Your task to perform on an android device: Clear all items from cart on bestbuy.com. Search for lenovo thinkpad on bestbuy.com, select the first entry, and add it to the cart. Image 0: 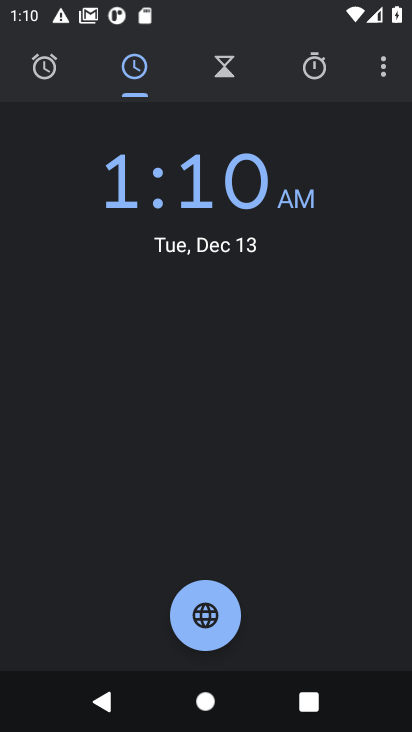
Step 0: press home button
Your task to perform on an android device: Clear all items from cart on bestbuy.com. Search for lenovo thinkpad on bestbuy.com, select the first entry, and add it to the cart. Image 1: 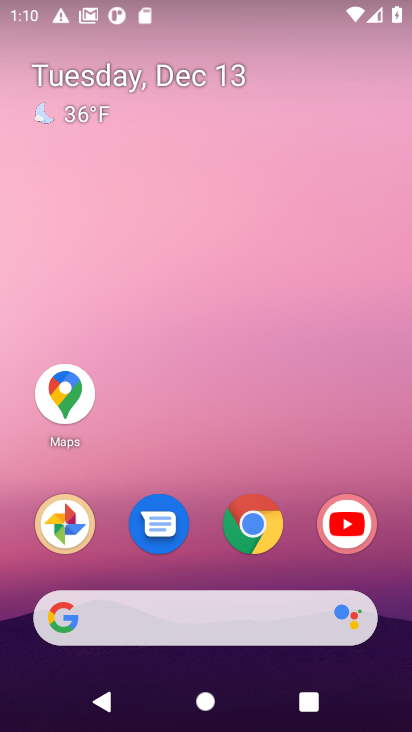
Step 1: click (250, 522)
Your task to perform on an android device: Clear all items from cart on bestbuy.com. Search for lenovo thinkpad on bestbuy.com, select the first entry, and add it to the cart. Image 2: 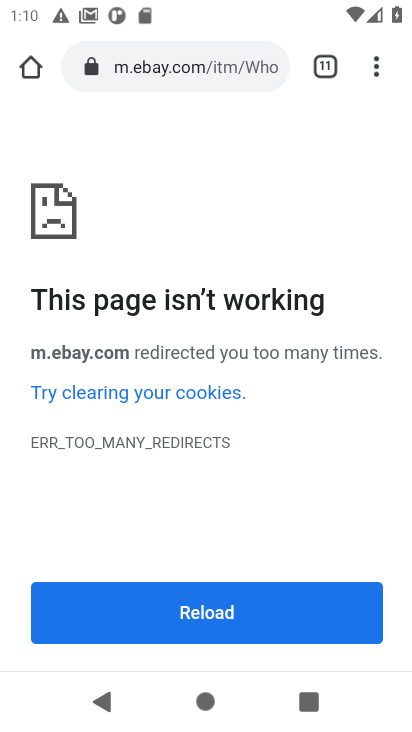
Step 2: click (146, 65)
Your task to perform on an android device: Clear all items from cart on bestbuy.com. Search for lenovo thinkpad on bestbuy.com, select the first entry, and add it to the cart. Image 3: 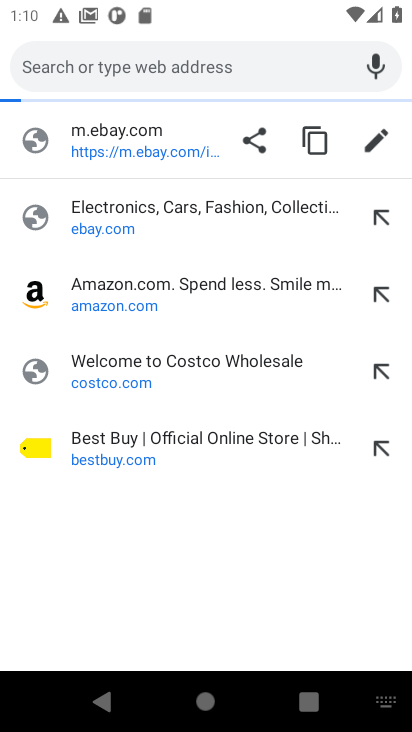
Step 3: click (89, 440)
Your task to perform on an android device: Clear all items from cart on bestbuy.com. Search for lenovo thinkpad on bestbuy.com, select the first entry, and add it to the cart. Image 4: 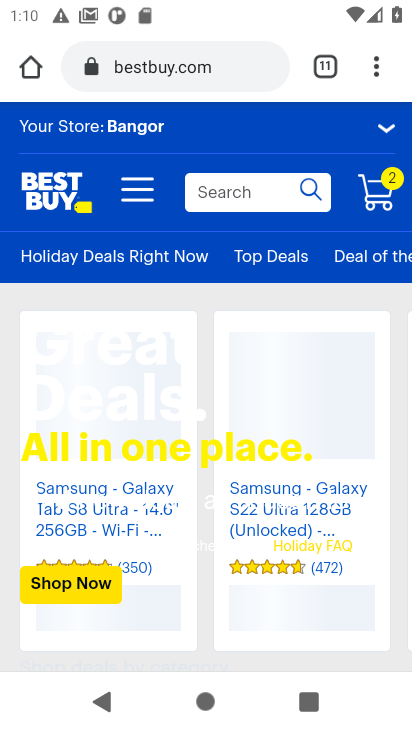
Step 4: click (384, 197)
Your task to perform on an android device: Clear all items from cart on bestbuy.com. Search for lenovo thinkpad on bestbuy.com, select the first entry, and add it to the cart. Image 5: 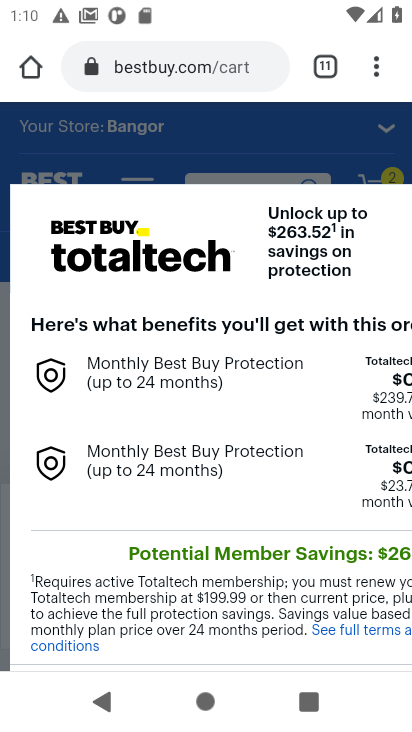
Step 5: drag from (245, 514) to (223, 623)
Your task to perform on an android device: Clear all items from cart on bestbuy.com. Search for lenovo thinkpad on bestbuy.com, select the first entry, and add it to the cart. Image 6: 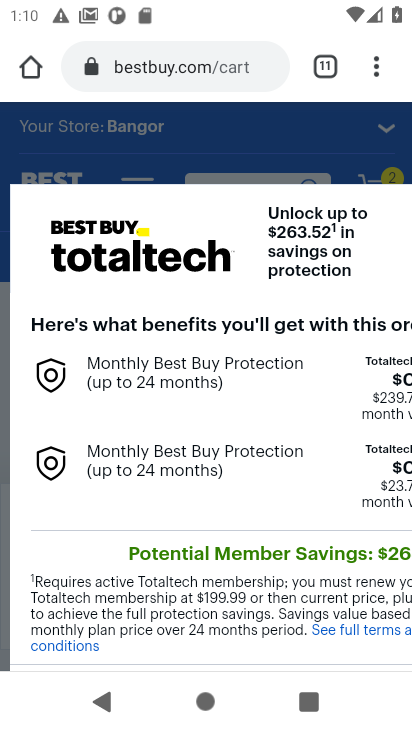
Step 6: click (279, 149)
Your task to perform on an android device: Clear all items from cart on bestbuy.com. Search for lenovo thinkpad on bestbuy.com, select the first entry, and add it to the cart. Image 7: 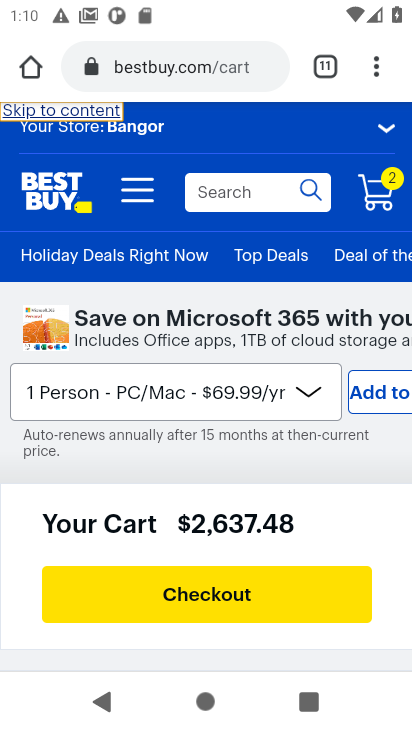
Step 7: drag from (183, 512) to (150, 117)
Your task to perform on an android device: Clear all items from cart on bestbuy.com. Search for lenovo thinkpad on bestbuy.com, select the first entry, and add it to the cart. Image 8: 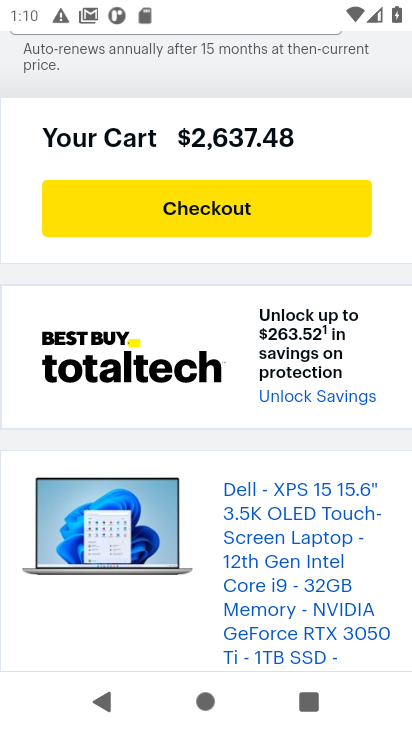
Step 8: drag from (165, 444) to (137, 181)
Your task to perform on an android device: Clear all items from cart on bestbuy.com. Search for lenovo thinkpad on bestbuy.com, select the first entry, and add it to the cart. Image 9: 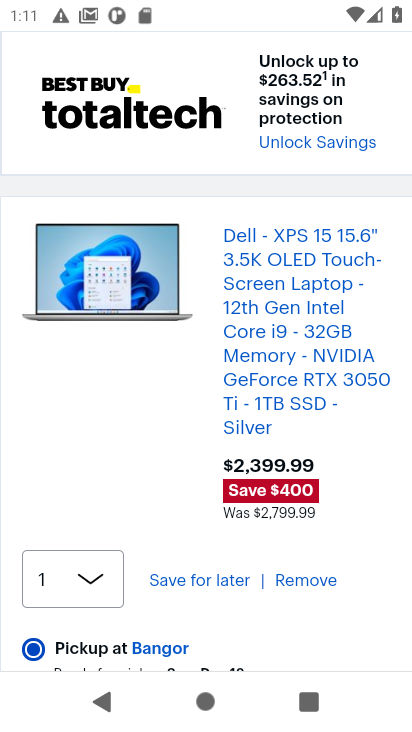
Step 9: click (297, 586)
Your task to perform on an android device: Clear all items from cart on bestbuy.com. Search for lenovo thinkpad on bestbuy.com, select the first entry, and add it to the cart. Image 10: 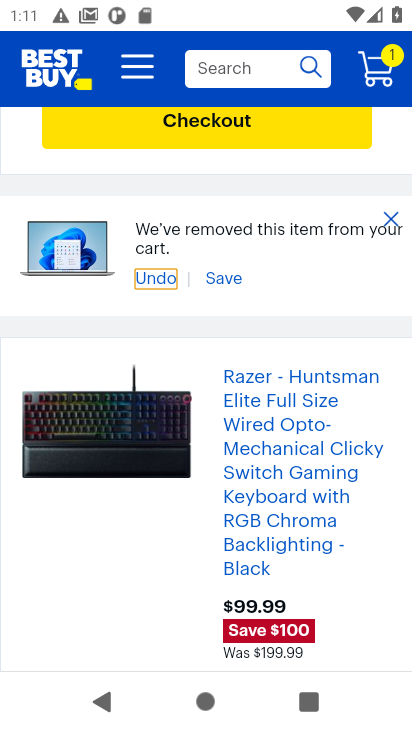
Step 10: drag from (272, 519) to (243, 241)
Your task to perform on an android device: Clear all items from cart on bestbuy.com. Search for lenovo thinkpad on bestbuy.com, select the first entry, and add it to the cart. Image 11: 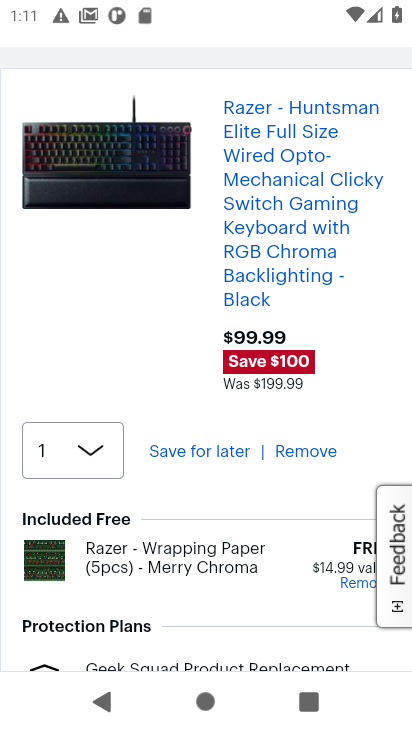
Step 11: click (316, 453)
Your task to perform on an android device: Clear all items from cart on bestbuy.com. Search for lenovo thinkpad on bestbuy.com, select the first entry, and add it to the cart. Image 12: 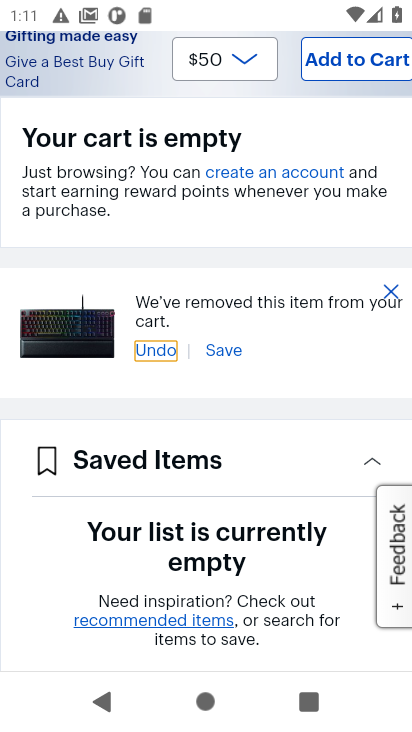
Step 12: drag from (278, 214) to (241, 629)
Your task to perform on an android device: Clear all items from cart on bestbuy.com. Search for lenovo thinkpad on bestbuy.com, select the first entry, and add it to the cart. Image 13: 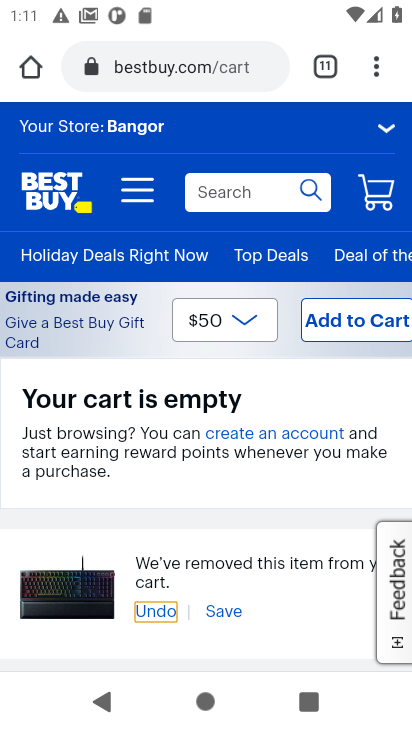
Step 13: click (220, 192)
Your task to perform on an android device: Clear all items from cart on bestbuy.com. Search for lenovo thinkpad on bestbuy.com, select the first entry, and add it to the cart. Image 14: 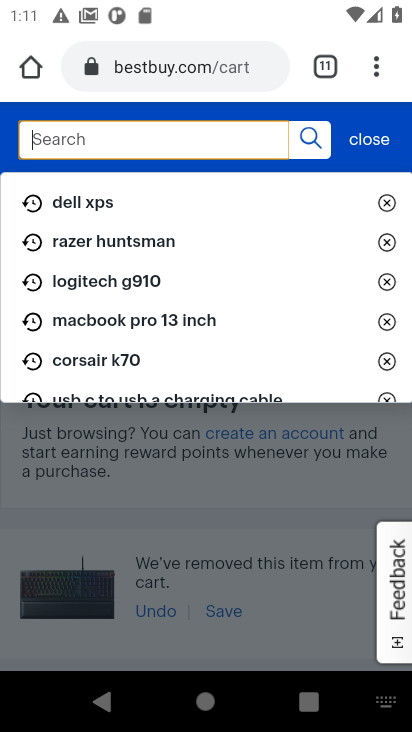
Step 14: type " lenovo thinkpad"
Your task to perform on an android device: Clear all items from cart on bestbuy.com. Search for lenovo thinkpad on bestbuy.com, select the first entry, and add it to the cart. Image 15: 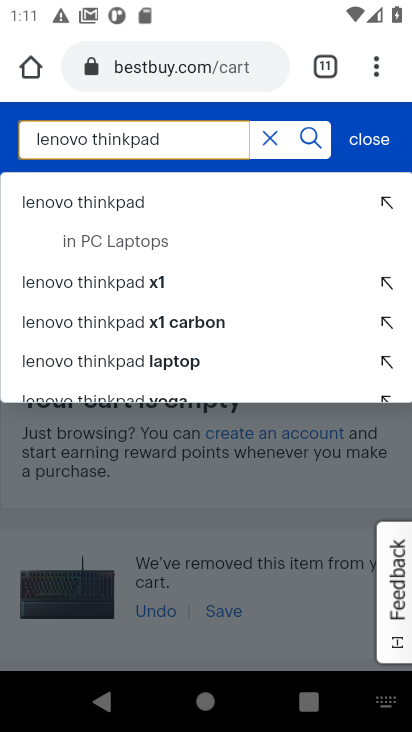
Step 15: click (93, 205)
Your task to perform on an android device: Clear all items from cart on bestbuy.com. Search for lenovo thinkpad on bestbuy.com, select the first entry, and add it to the cart. Image 16: 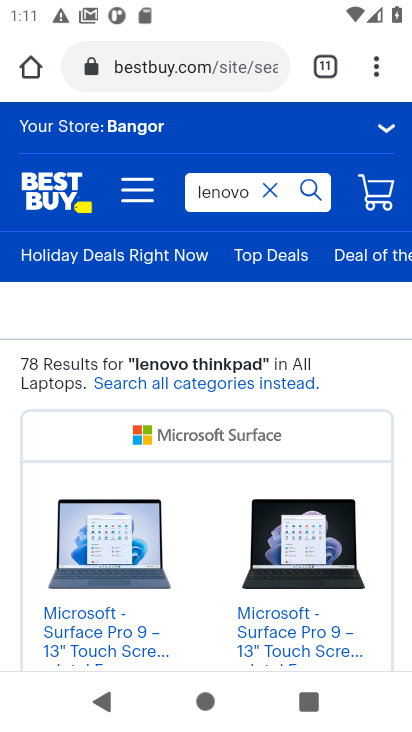
Step 16: drag from (183, 525) to (174, 124)
Your task to perform on an android device: Clear all items from cart on bestbuy.com. Search for lenovo thinkpad on bestbuy.com, select the first entry, and add it to the cart. Image 17: 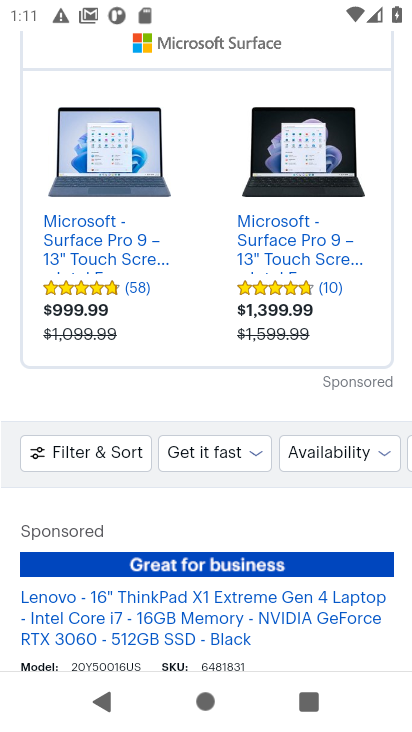
Step 17: drag from (170, 488) to (157, 171)
Your task to perform on an android device: Clear all items from cart on bestbuy.com. Search for lenovo thinkpad on bestbuy.com, select the first entry, and add it to the cart. Image 18: 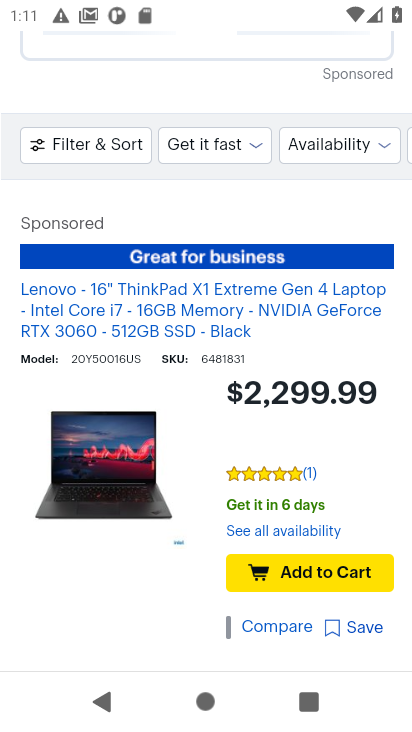
Step 18: click (251, 532)
Your task to perform on an android device: Clear all items from cart on bestbuy.com. Search for lenovo thinkpad on bestbuy.com, select the first entry, and add it to the cart. Image 19: 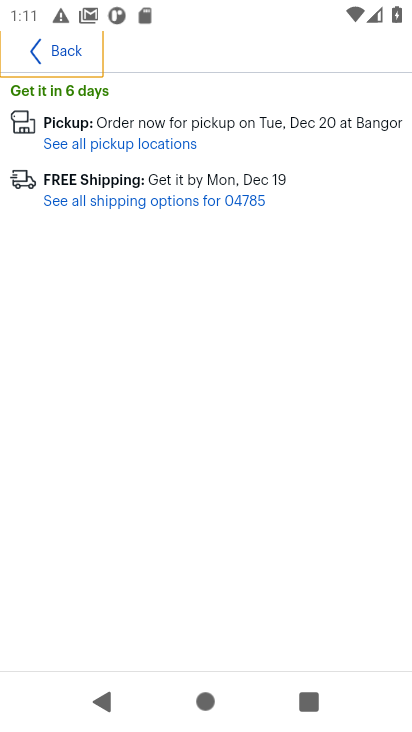
Step 19: click (52, 52)
Your task to perform on an android device: Clear all items from cart on bestbuy.com. Search for lenovo thinkpad on bestbuy.com, select the first entry, and add it to the cart. Image 20: 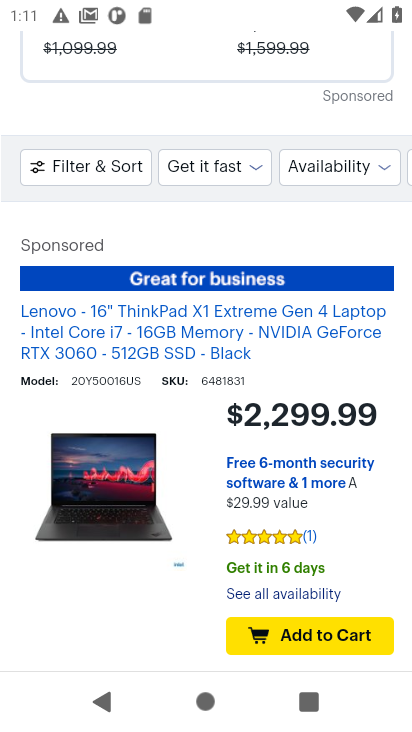
Step 20: click (278, 632)
Your task to perform on an android device: Clear all items from cart on bestbuy.com. Search for lenovo thinkpad on bestbuy.com, select the first entry, and add it to the cart. Image 21: 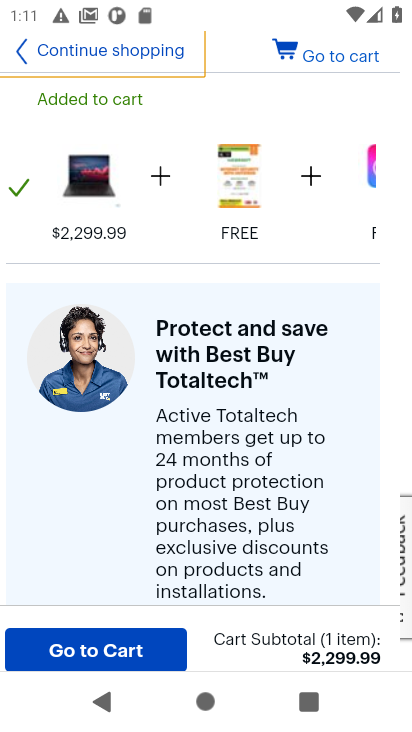
Step 21: task complete